Your task to perform on an android device: Open display settings Image 0: 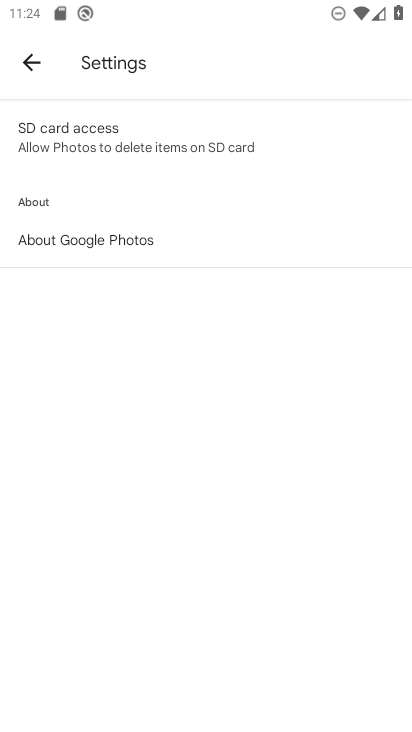
Step 0: click (31, 64)
Your task to perform on an android device: Open display settings Image 1: 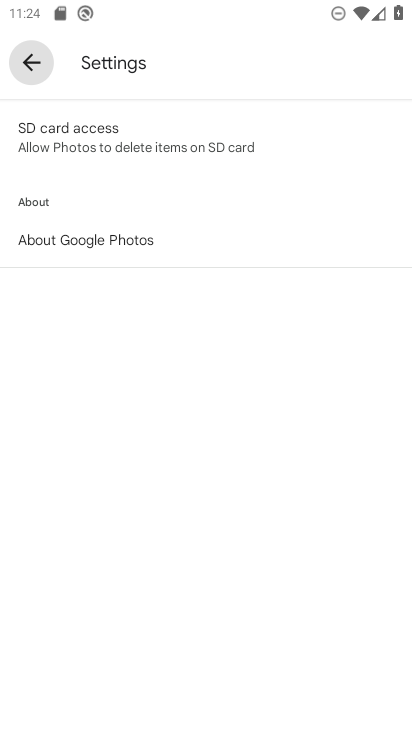
Step 1: click (31, 64)
Your task to perform on an android device: Open display settings Image 2: 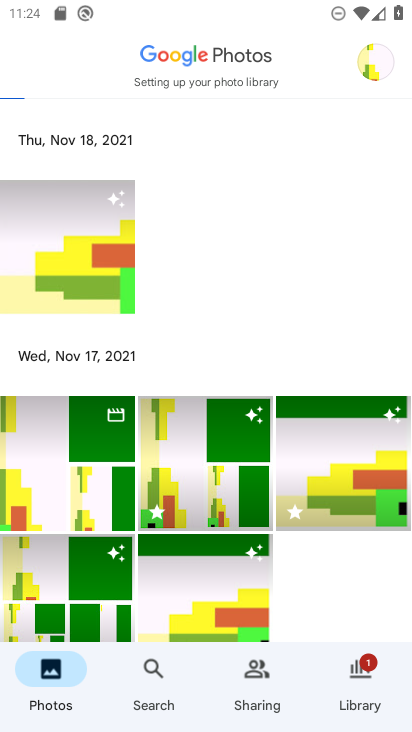
Step 2: press back button
Your task to perform on an android device: Open display settings Image 3: 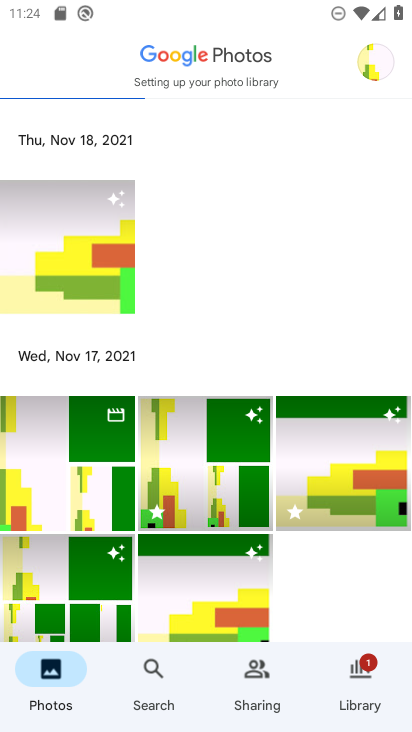
Step 3: press back button
Your task to perform on an android device: Open display settings Image 4: 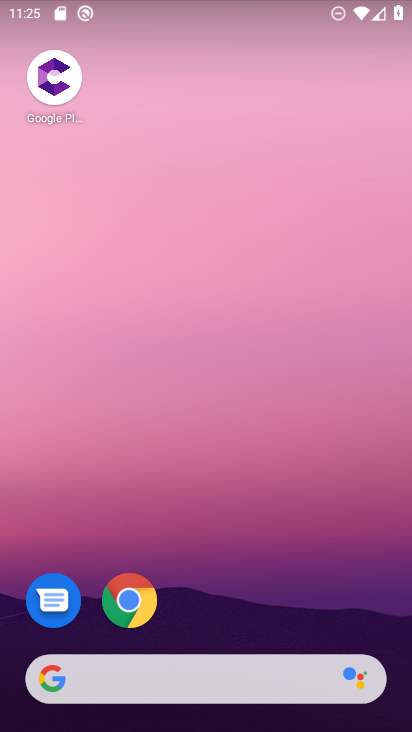
Step 4: drag from (206, 510) to (127, 180)
Your task to perform on an android device: Open display settings Image 5: 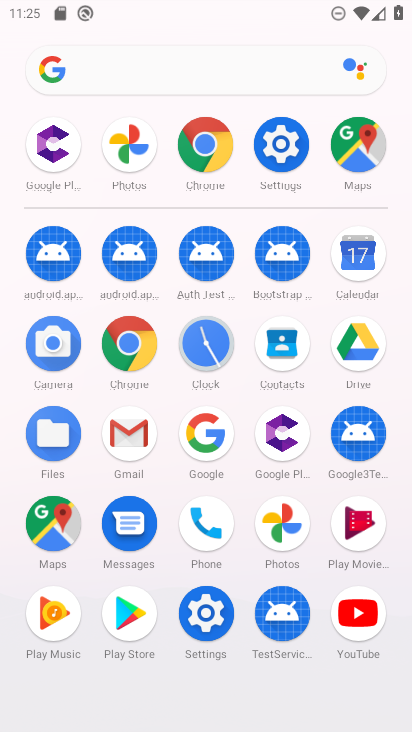
Step 5: click (278, 139)
Your task to perform on an android device: Open display settings Image 6: 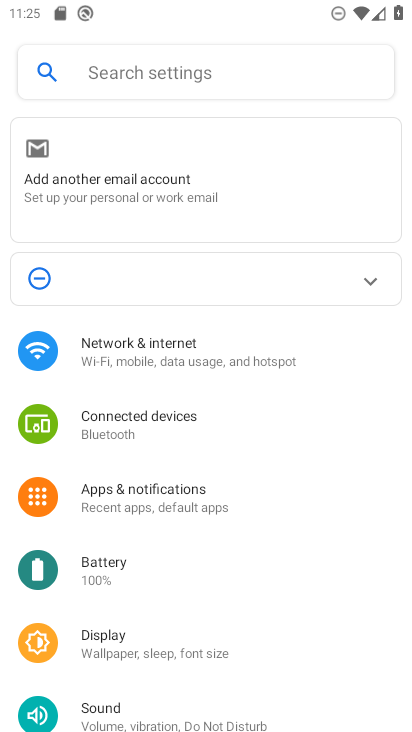
Step 6: click (100, 635)
Your task to perform on an android device: Open display settings Image 7: 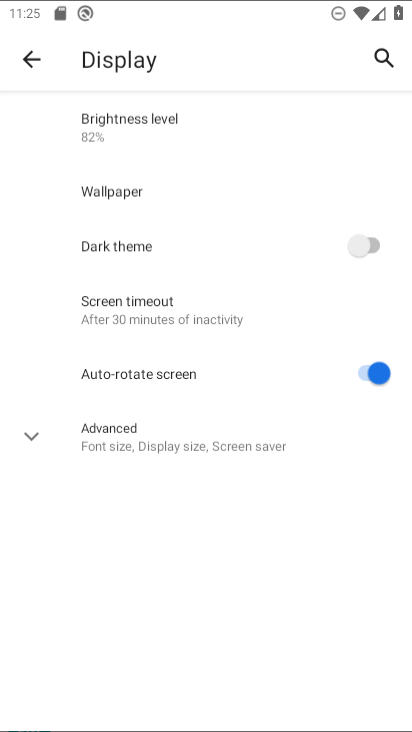
Step 7: click (99, 636)
Your task to perform on an android device: Open display settings Image 8: 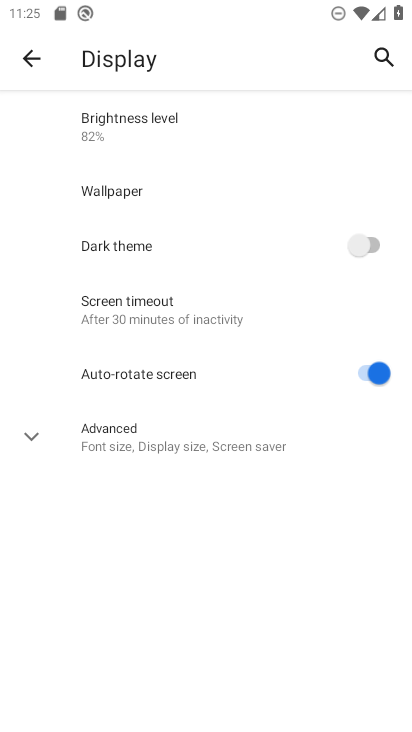
Step 8: task complete